Your task to perform on an android device: Empty the shopping cart on amazon.com. Search for "acer nitro" on amazon.com, select the first entry, and add it to the cart. Image 0: 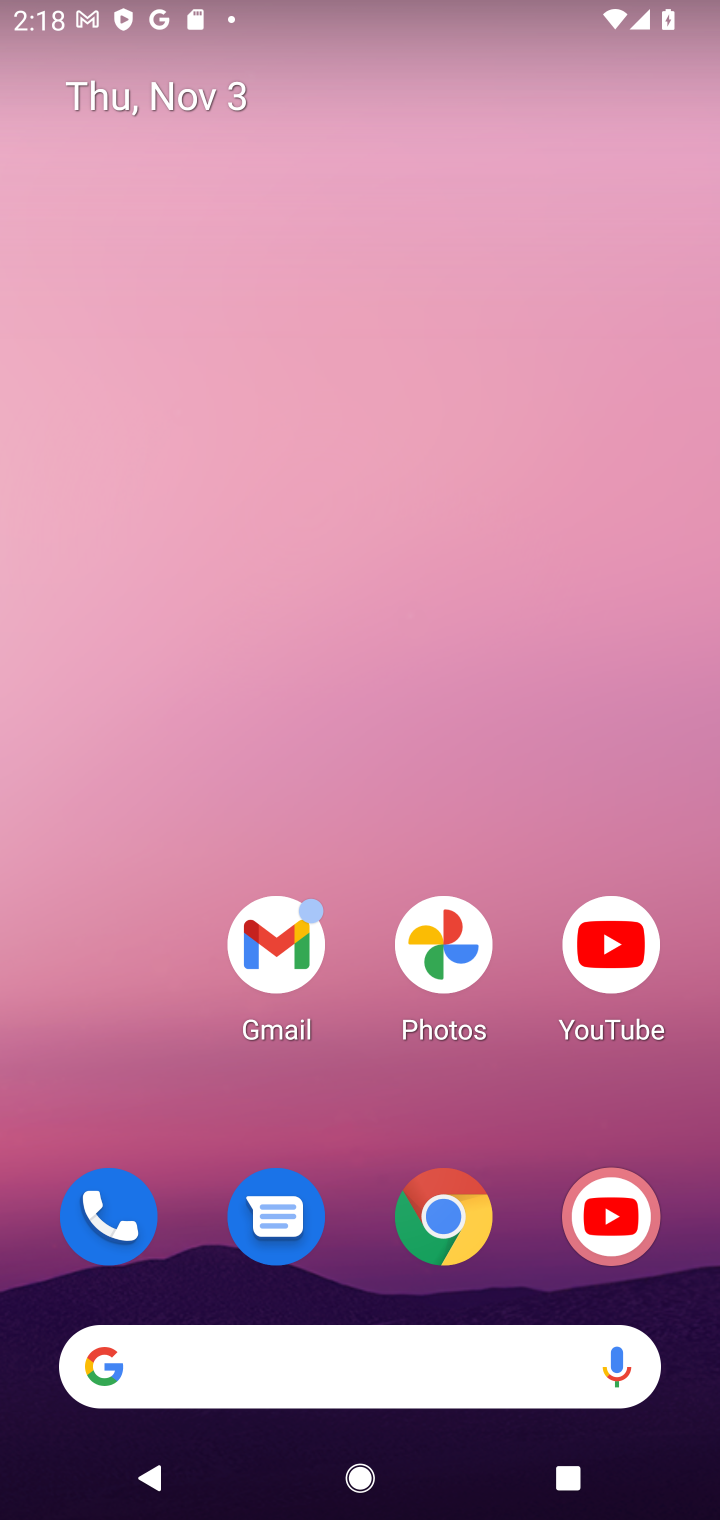
Step 0: press home button
Your task to perform on an android device: Empty the shopping cart on amazon.com. Search for "acer nitro" on amazon.com, select the first entry, and add it to the cart. Image 1: 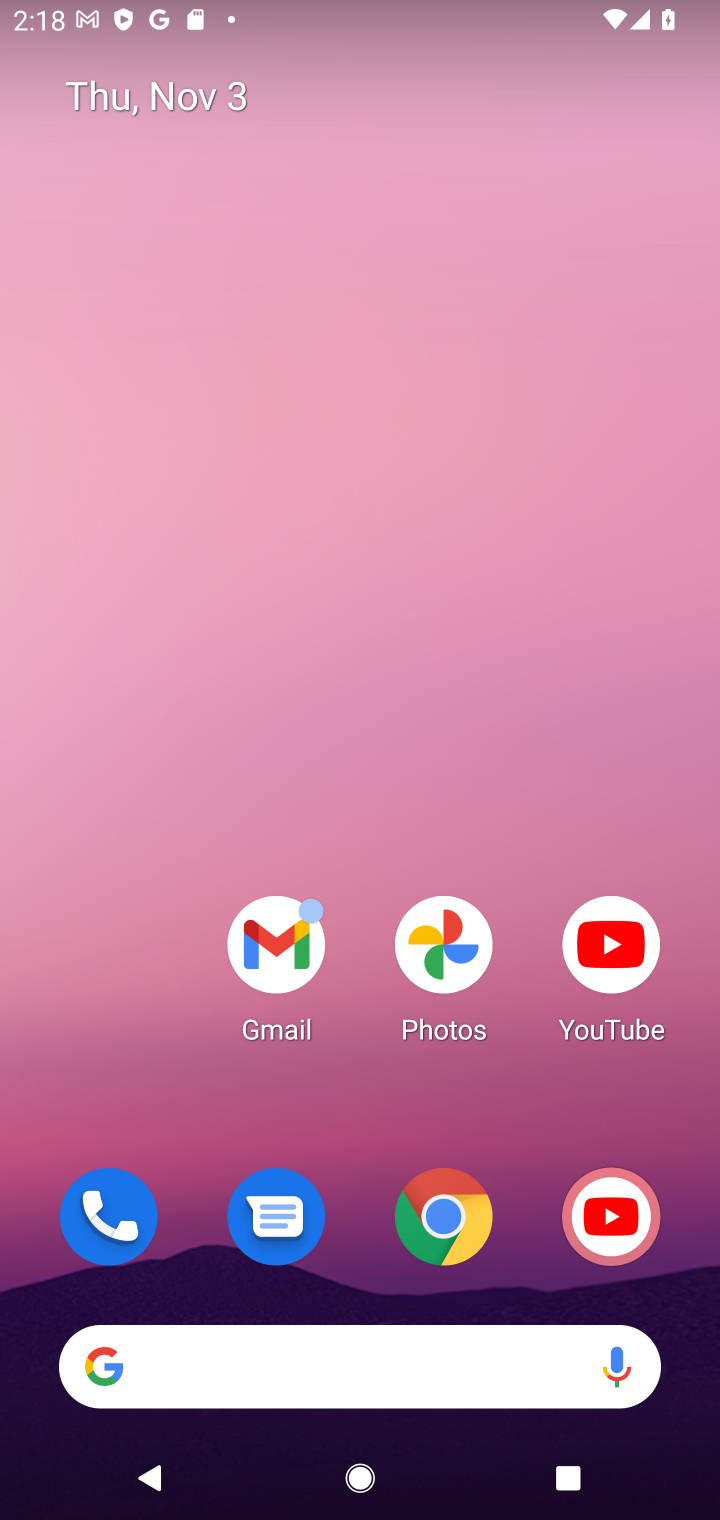
Step 1: drag from (374, 1156) to (403, 166)
Your task to perform on an android device: Empty the shopping cart on amazon.com. Search for "acer nitro" on amazon.com, select the first entry, and add it to the cart. Image 2: 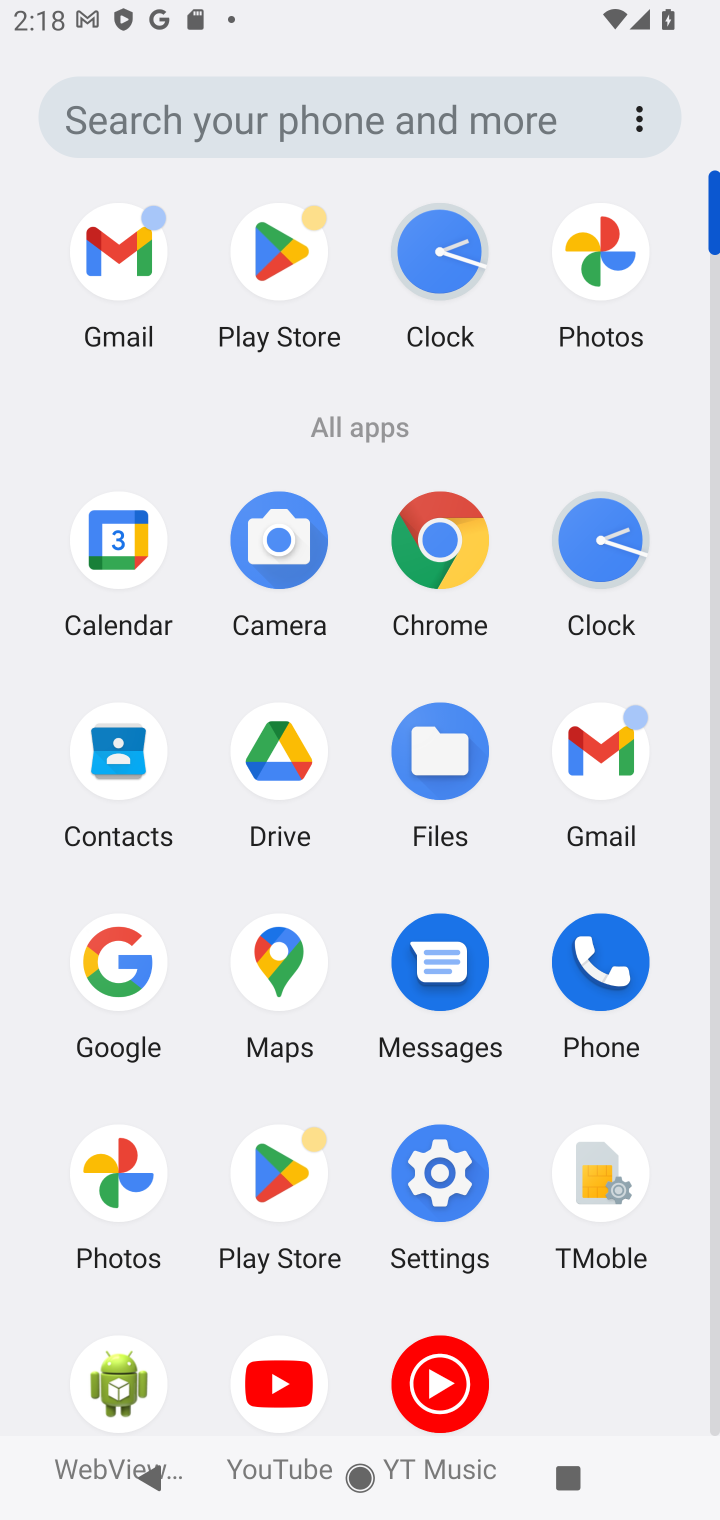
Step 2: click (429, 534)
Your task to perform on an android device: Empty the shopping cart on amazon.com. Search for "acer nitro" on amazon.com, select the first entry, and add it to the cart. Image 3: 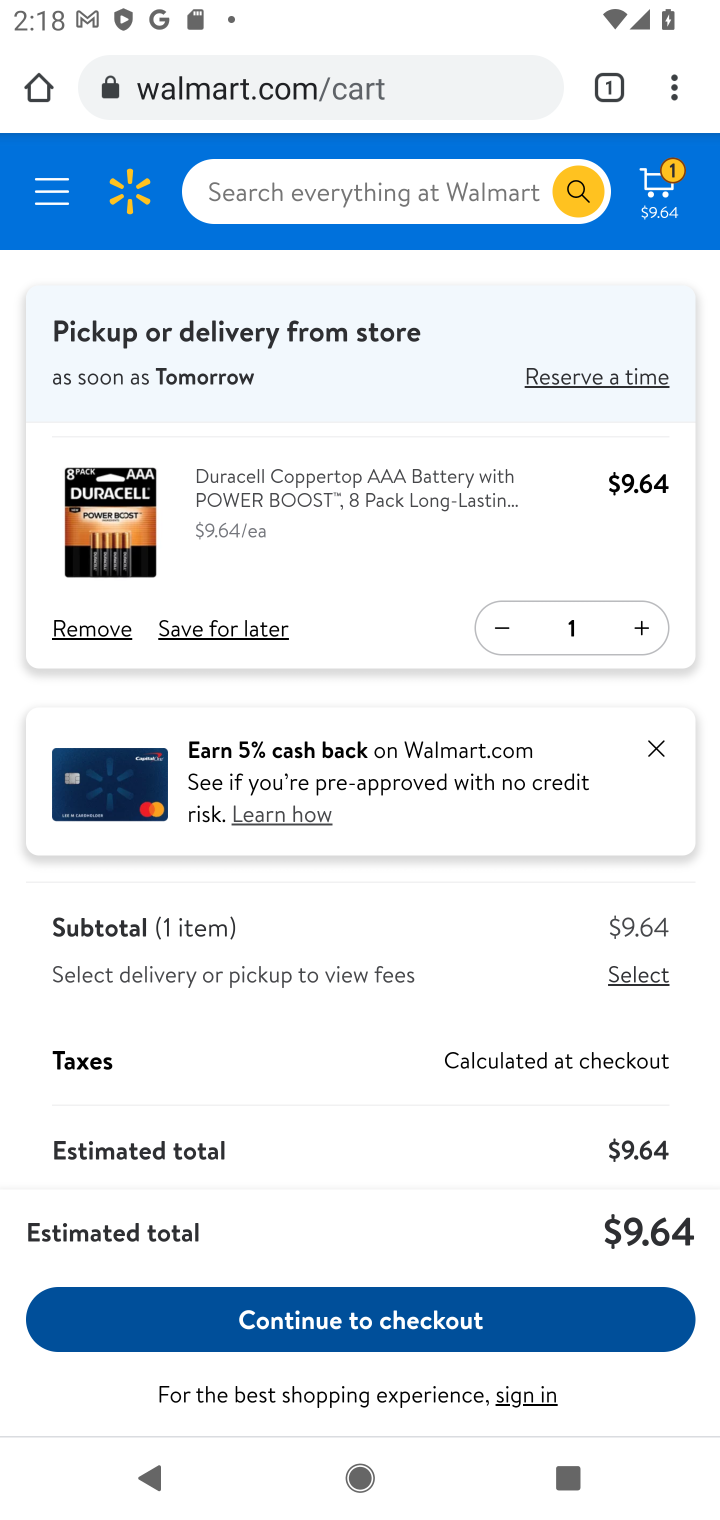
Step 3: click (213, 79)
Your task to perform on an android device: Empty the shopping cart on amazon.com. Search for "acer nitro" on amazon.com, select the first entry, and add it to the cart. Image 4: 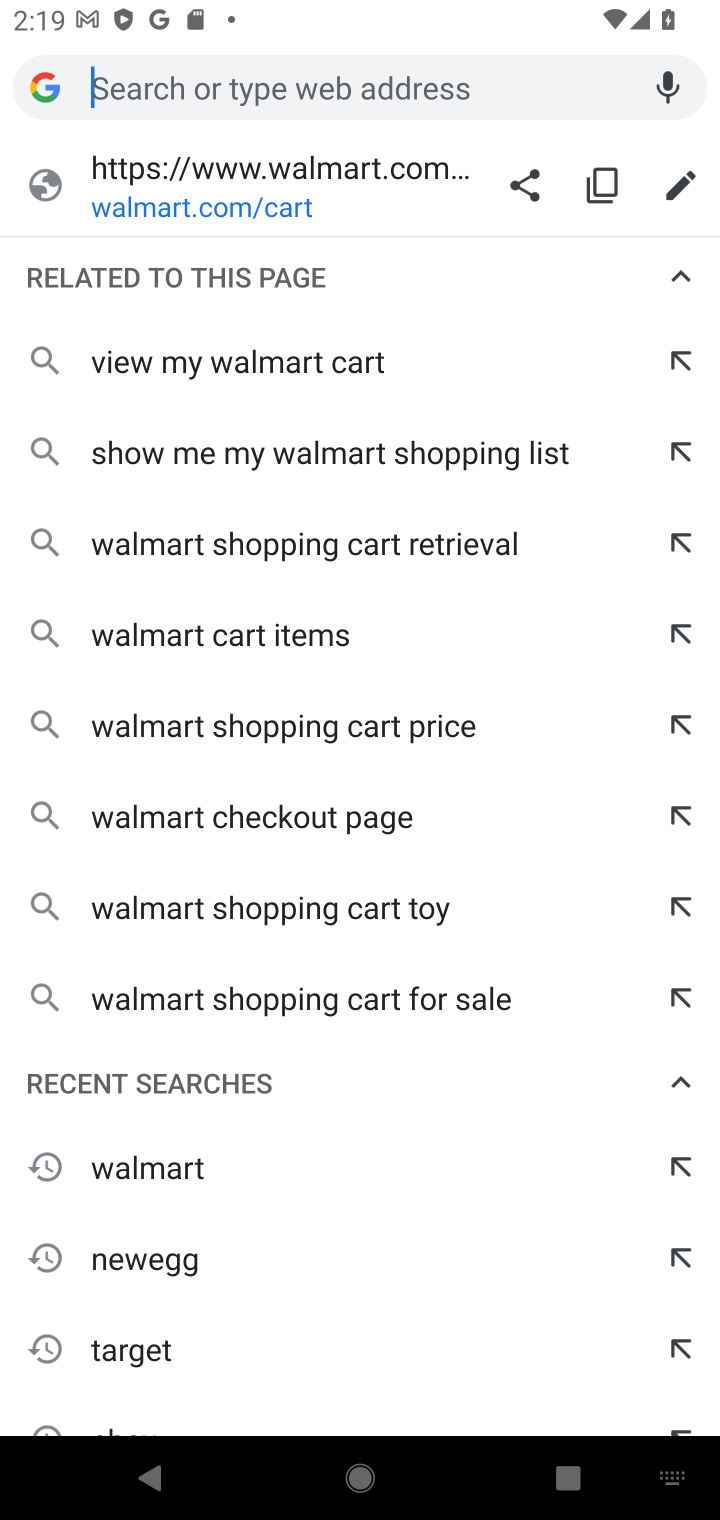
Step 4: type "amazon"
Your task to perform on an android device: Empty the shopping cart on amazon.com. Search for "acer nitro" on amazon.com, select the first entry, and add it to the cart. Image 5: 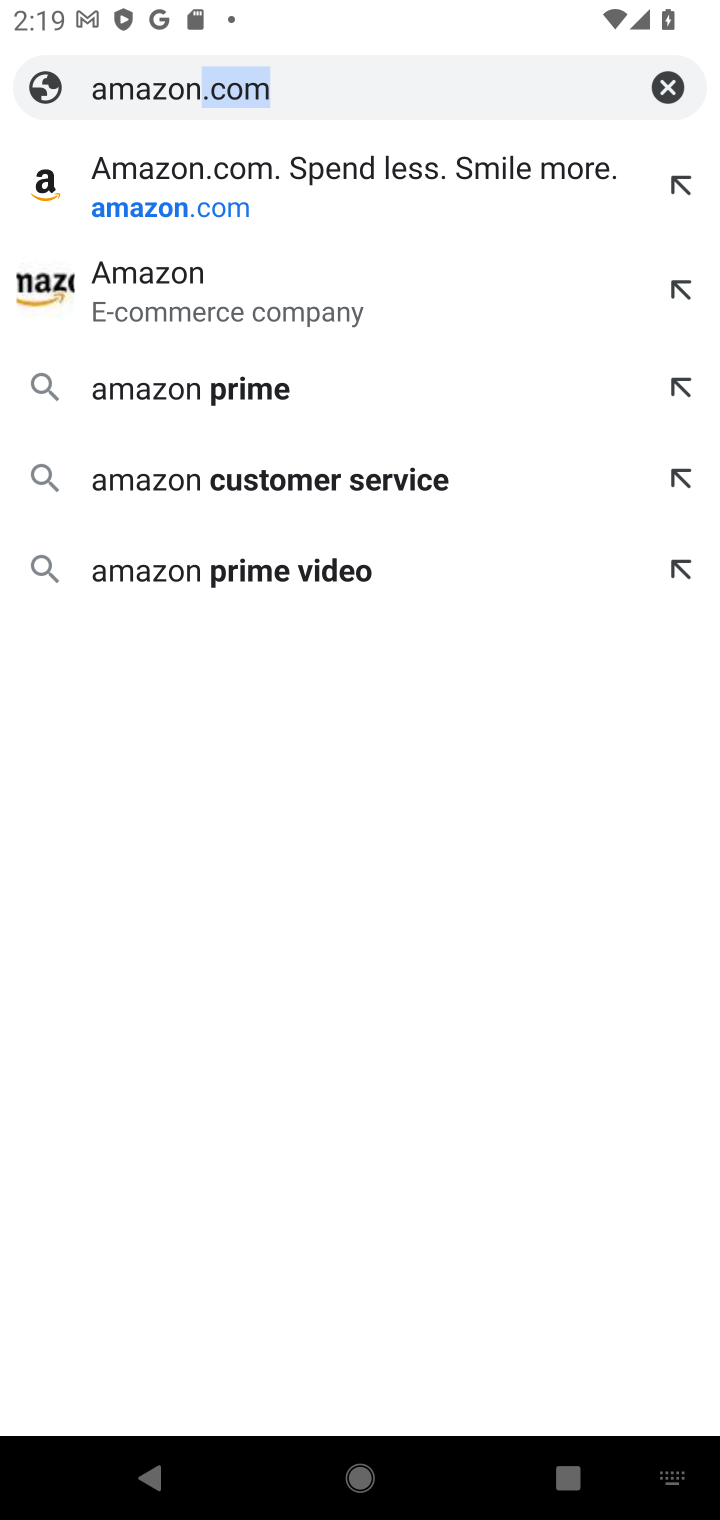
Step 5: click (256, 199)
Your task to perform on an android device: Empty the shopping cart on amazon.com. Search for "acer nitro" on amazon.com, select the first entry, and add it to the cart. Image 6: 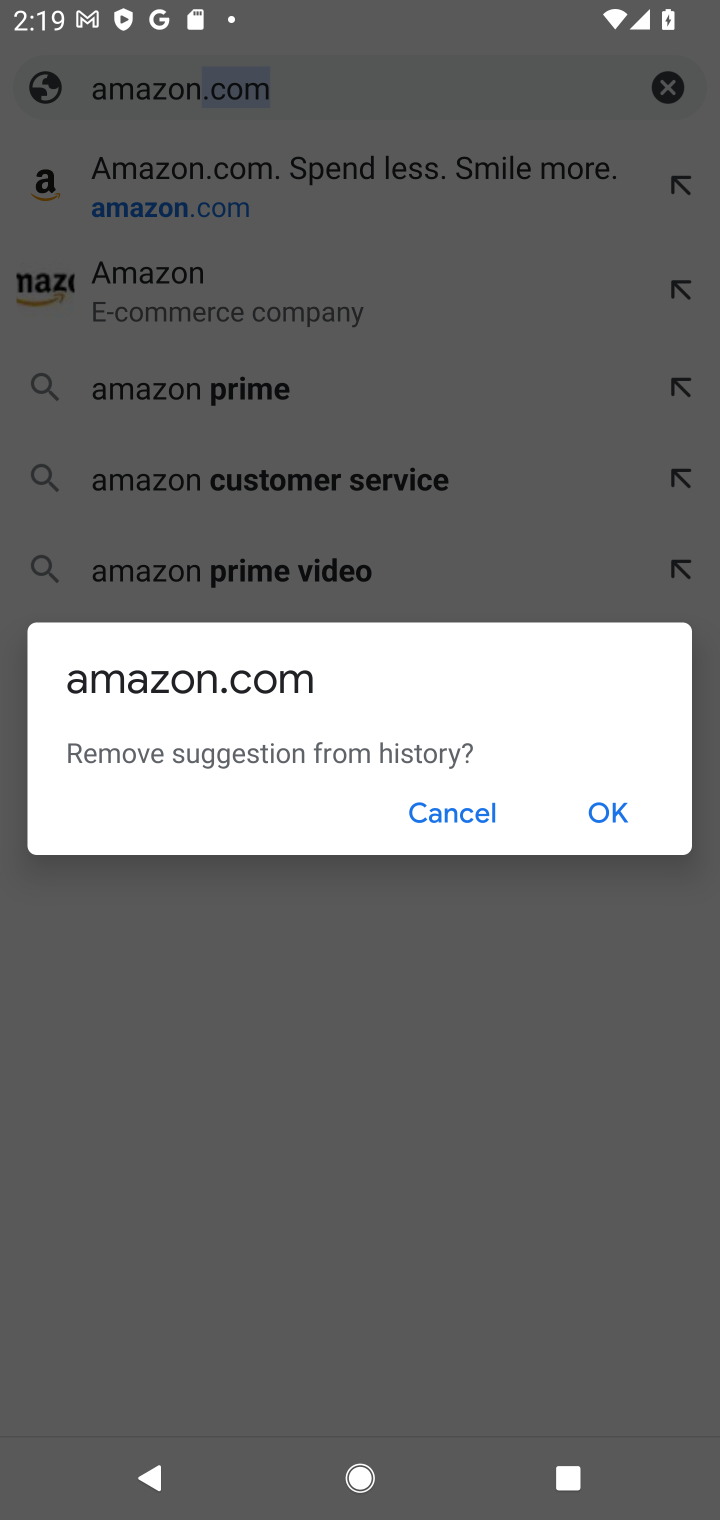
Step 6: click (453, 807)
Your task to perform on an android device: Empty the shopping cart on amazon.com. Search for "acer nitro" on amazon.com, select the first entry, and add it to the cart. Image 7: 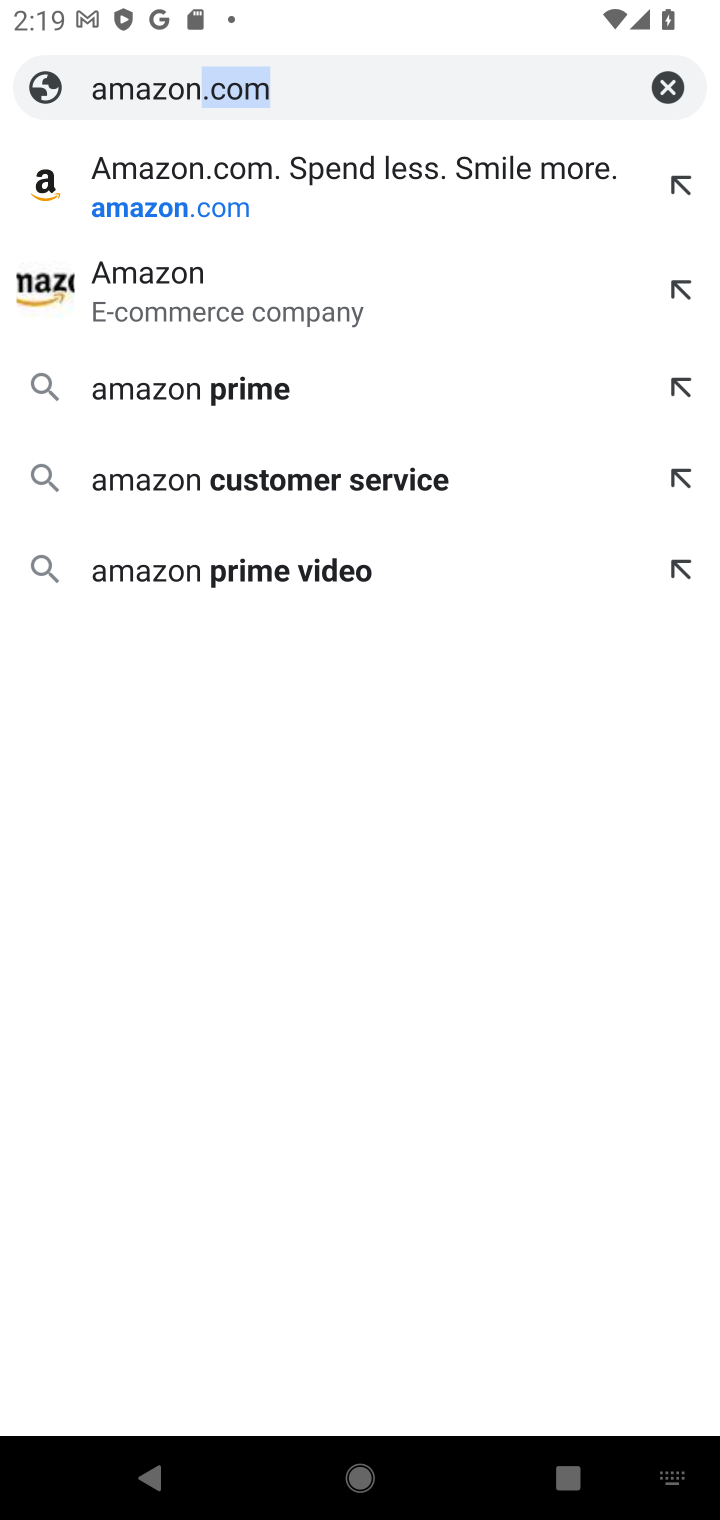
Step 7: click (128, 184)
Your task to perform on an android device: Empty the shopping cart on amazon.com. Search for "acer nitro" on amazon.com, select the first entry, and add it to the cart. Image 8: 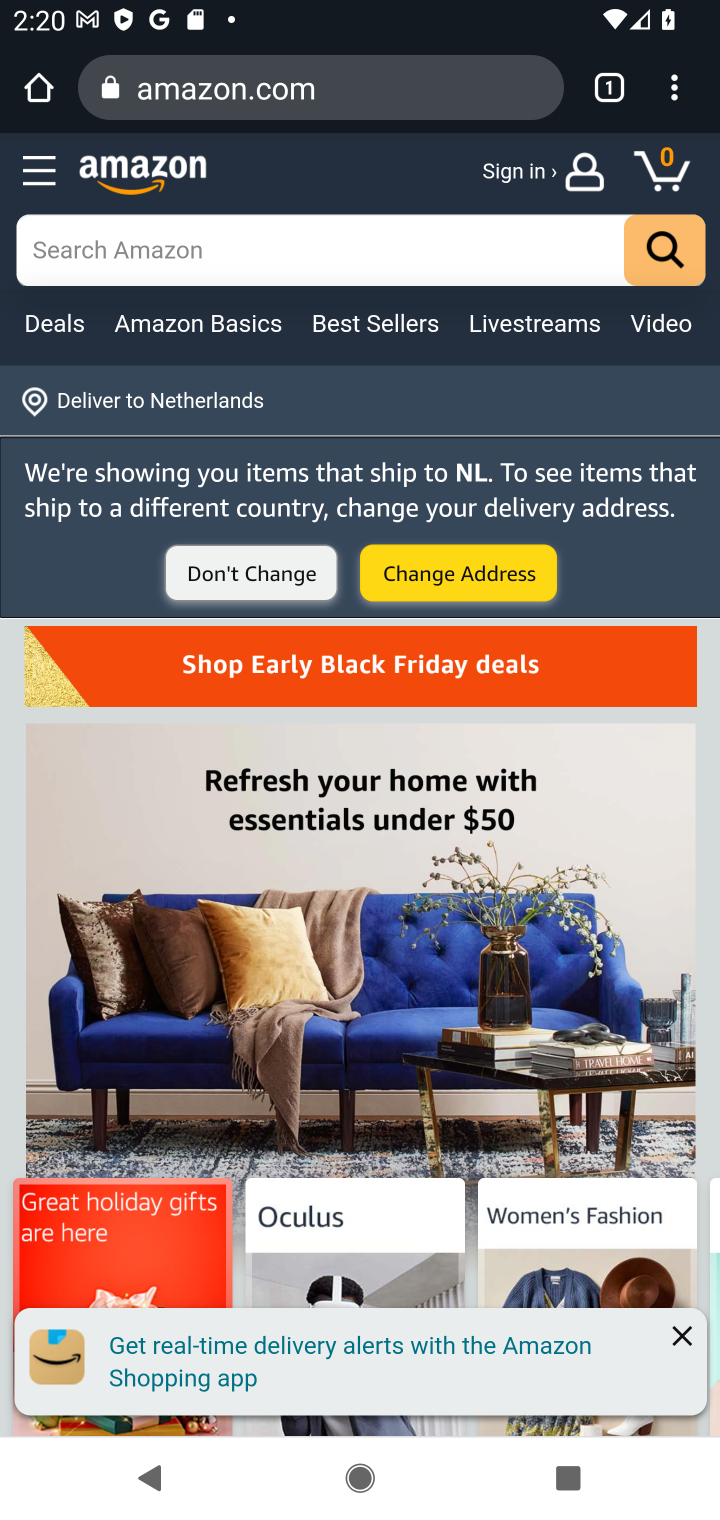
Step 8: click (98, 243)
Your task to perform on an android device: Empty the shopping cart on amazon.com. Search for "acer nitro" on amazon.com, select the first entry, and add it to the cart. Image 9: 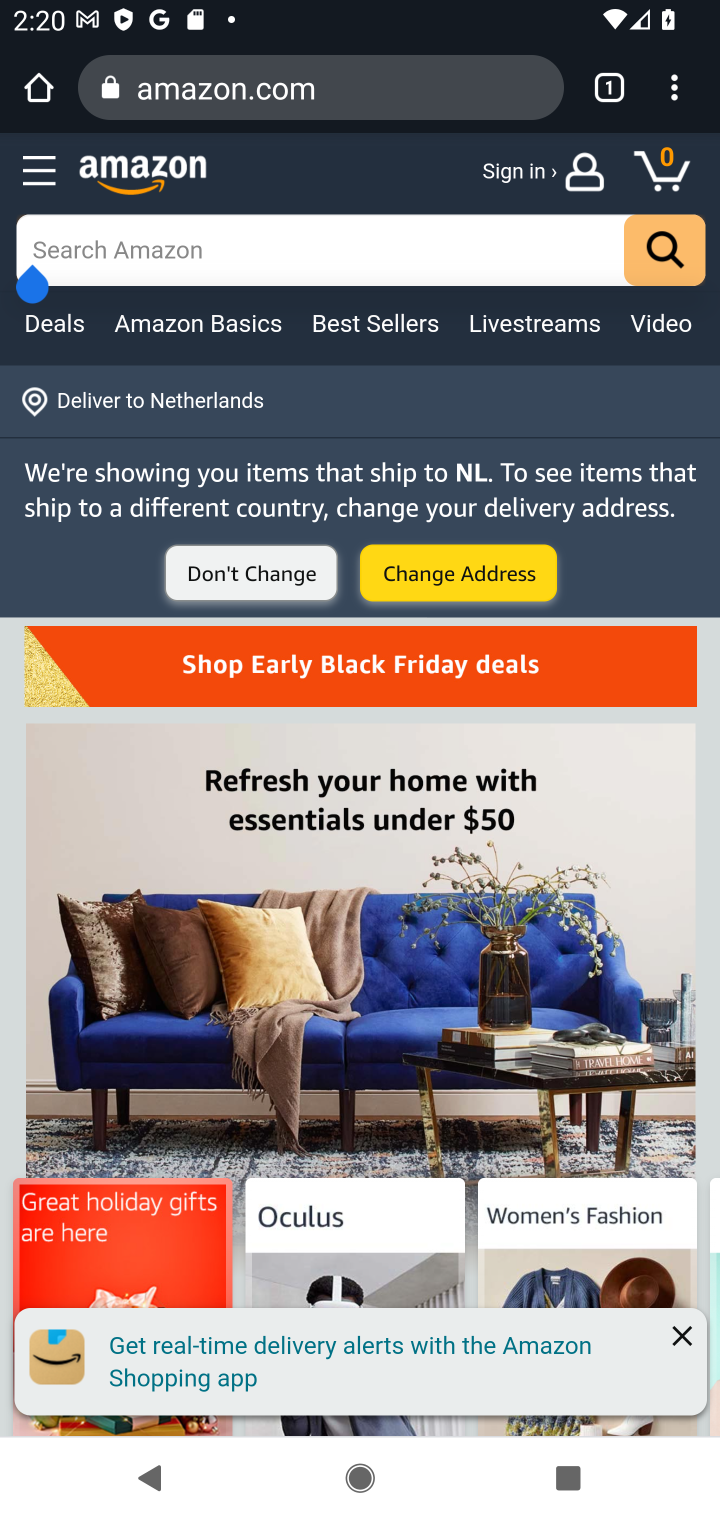
Step 9: type "acer nitro"
Your task to perform on an android device: Empty the shopping cart on amazon.com. Search for "acer nitro" on amazon.com, select the first entry, and add it to the cart. Image 10: 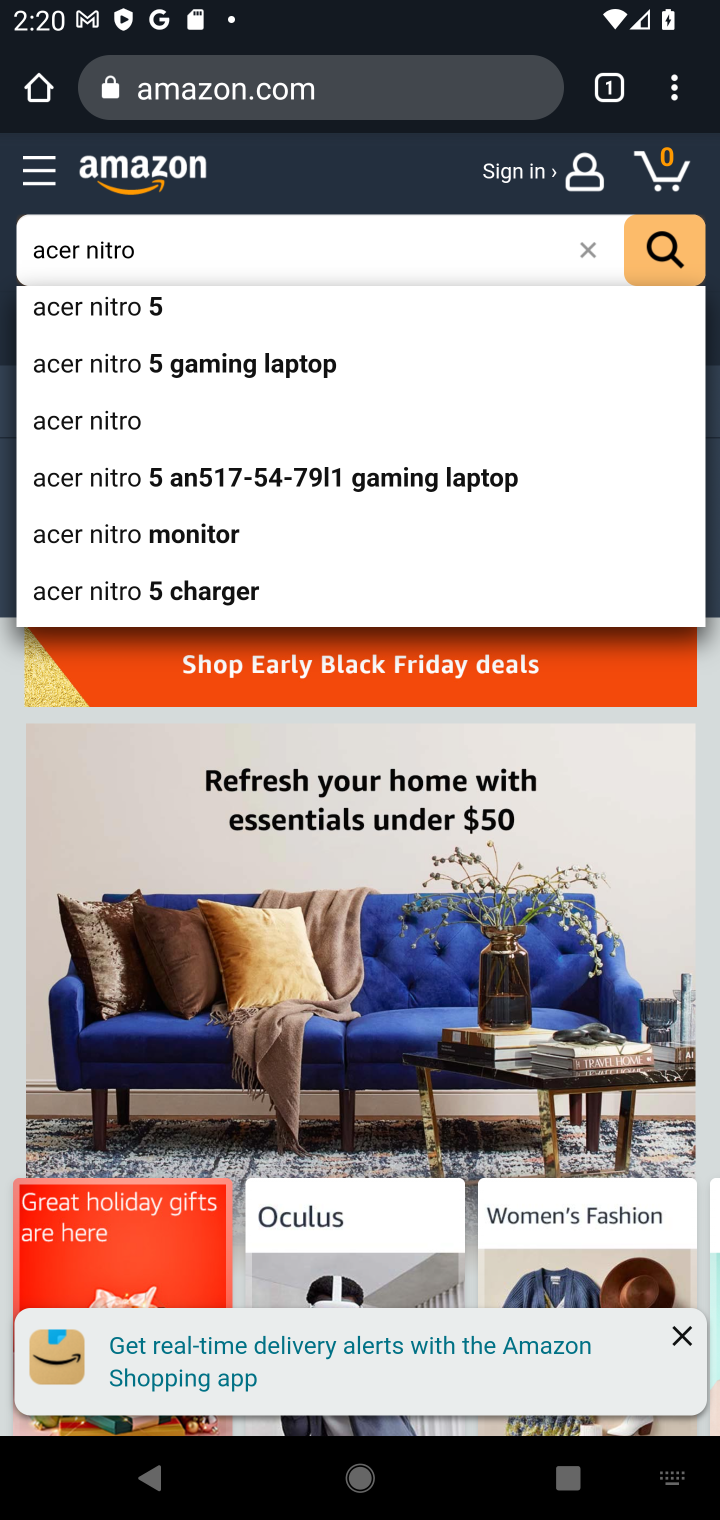
Step 10: click (133, 416)
Your task to perform on an android device: Empty the shopping cart on amazon.com. Search for "acer nitro" on amazon.com, select the first entry, and add it to the cart. Image 11: 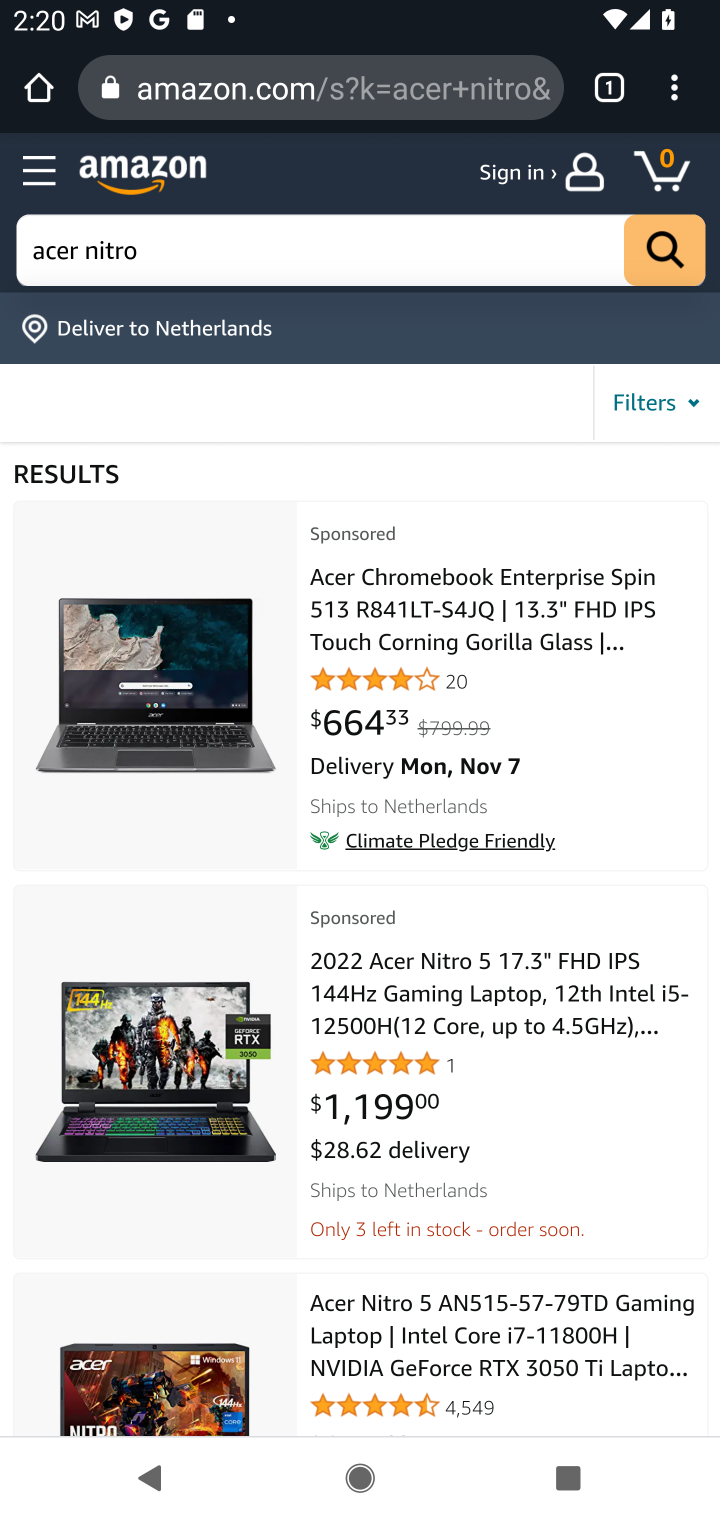
Step 11: click (386, 986)
Your task to perform on an android device: Empty the shopping cart on amazon.com. Search for "acer nitro" on amazon.com, select the first entry, and add it to the cart. Image 12: 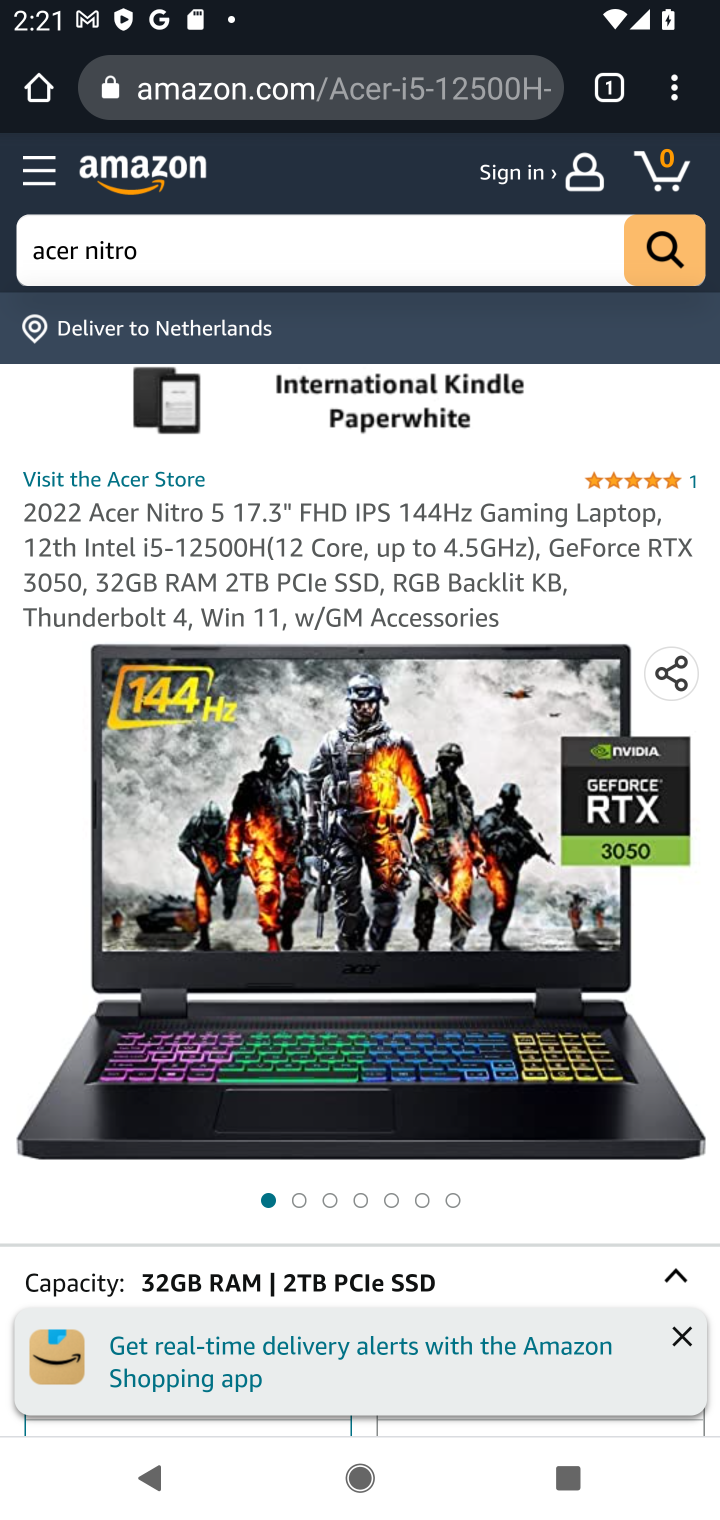
Step 12: drag from (355, 1231) to (384, 386)
Your task to perform on an android device: Empty the shopping cart on amazon.com. Search for "acer nitro" on amazon.com, select the first entry, and add it to the cart. Image 13: 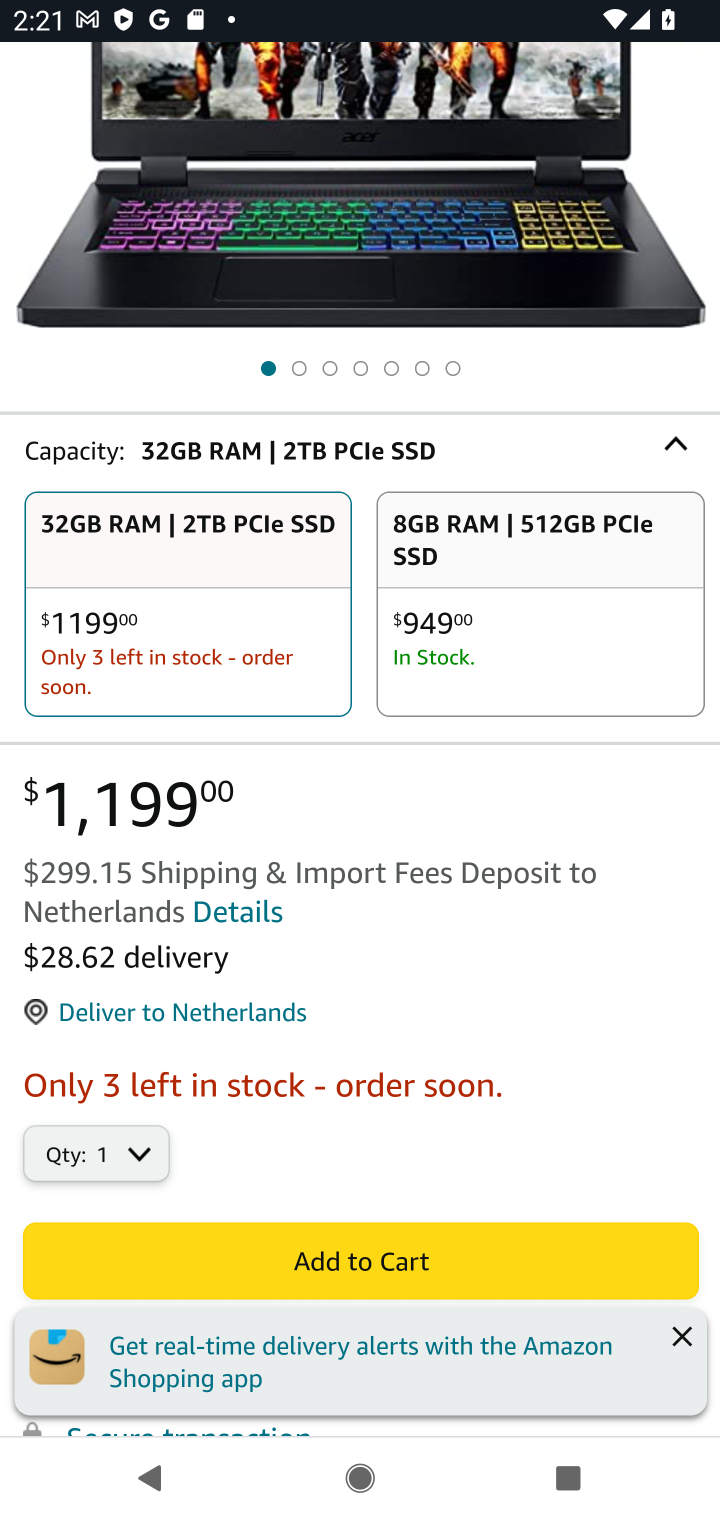
Step 13: click (357, 1256)
Your task to perform on an android device: Empty the shopping cart on amazon.com. Search for "acer nitro" on amazon.com, select the first entry, and add it to the cart. Image 14: 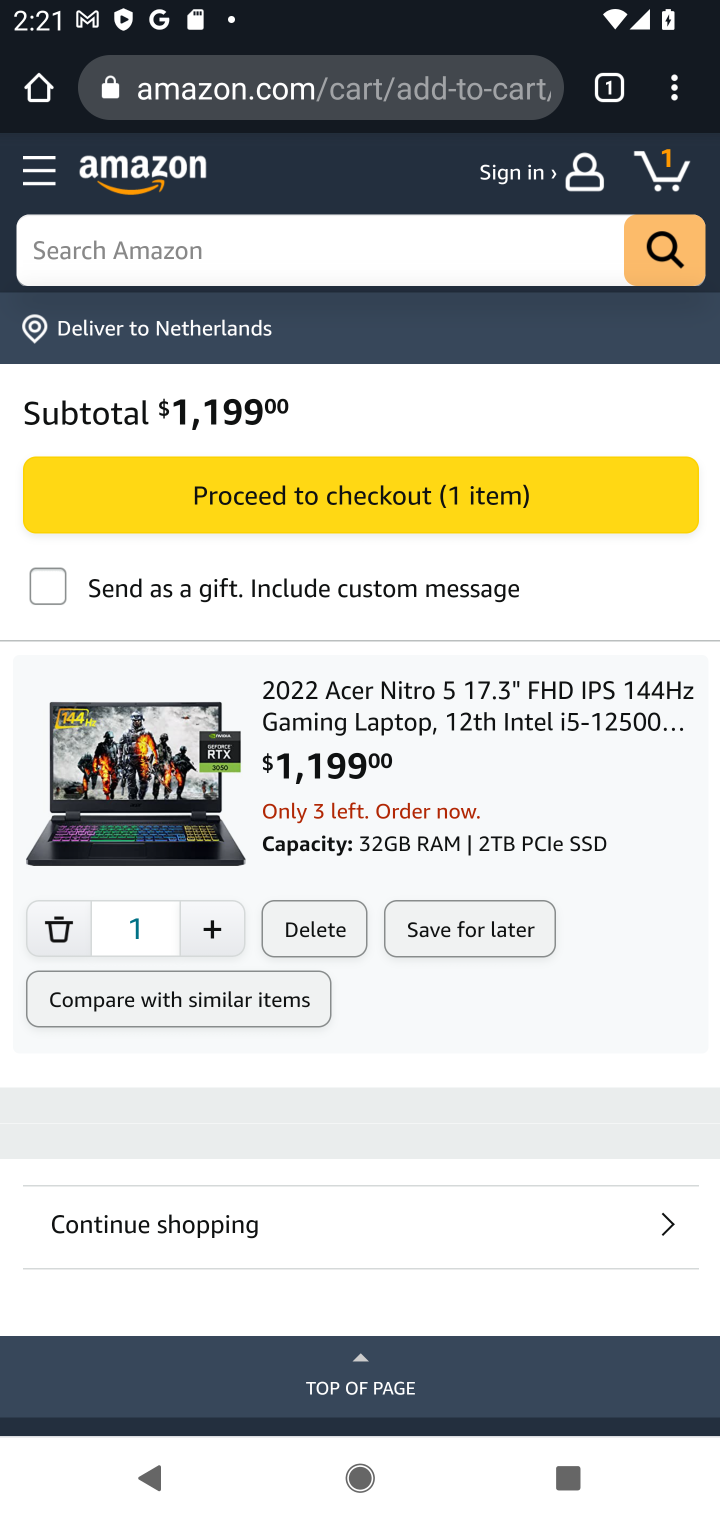
Step 14: click (355, 493)
Your task to perform on an android device: Empty the shopping cart on amazon.com. Search for "acer nitro" on amazon.com, select the first entry, and add it to the cart. Image 15: 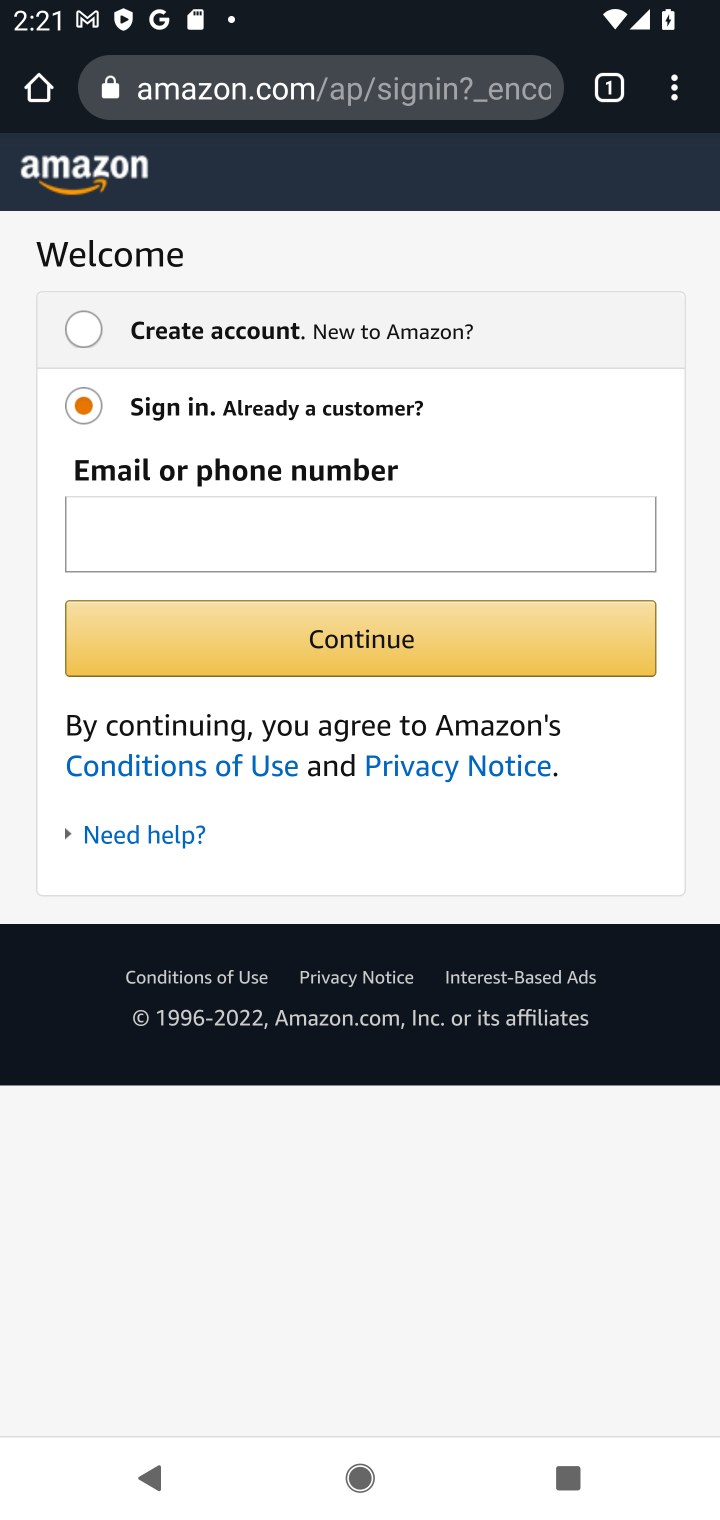
Step 15: task complete